Your task to perform on an android device: Go to Reddit.com Image 0: 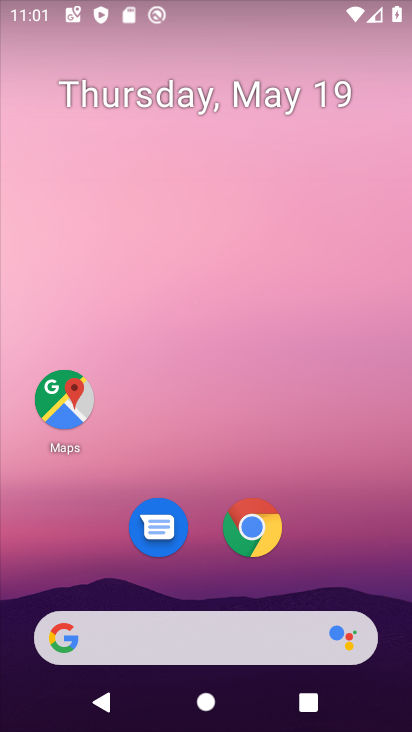
Step 0: click (255, 533)
Your task to perform on an android device: Go to Reddit.com Image 1: 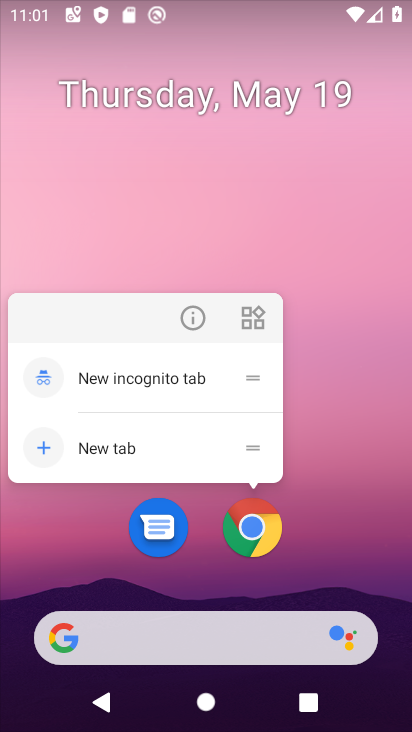
Step 1: click (255, 534)
Your task to perform on an android device: Go to Reddit.com Image 2: 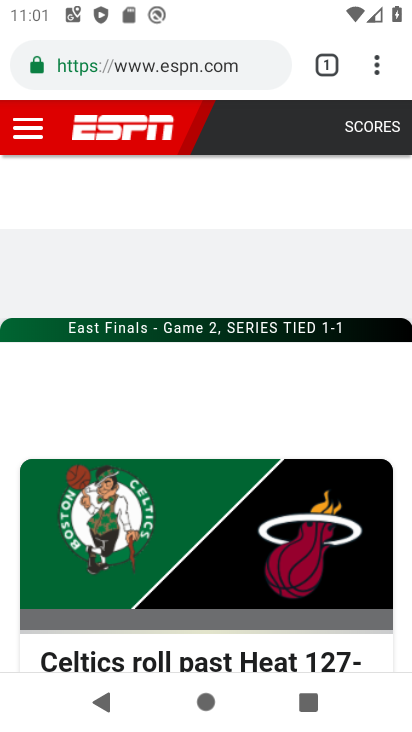
Step 2: click (153, 70)
Your task to perform on an android device: Go to Reddit.com Image 3: 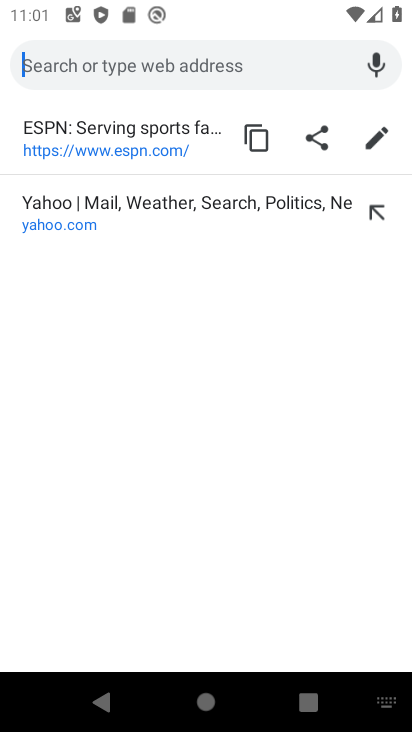
Step 3: type "Reddit.com"
Your task to perform on an android device: Go to Reddit.com Image 4: 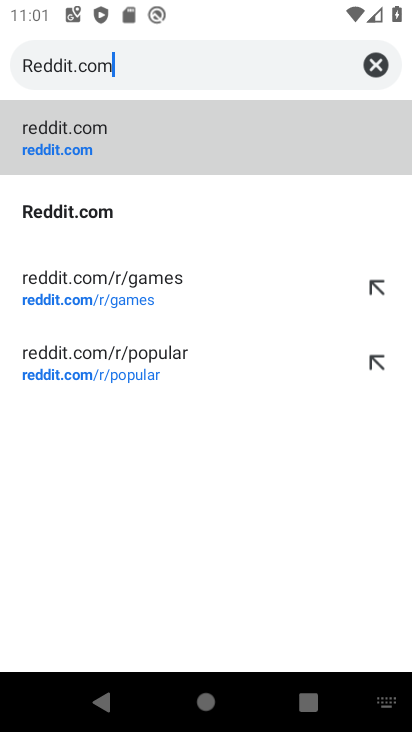
Step 4: click (104, 131)
Your task to perform on an android device: Go to Reddit.com Image 5: 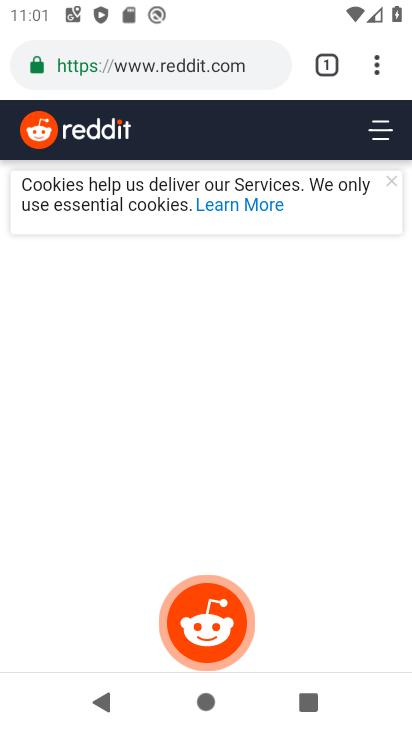
Step 5: task complete